Your task to perform on an android device: Toggle the flashlight Image 0: 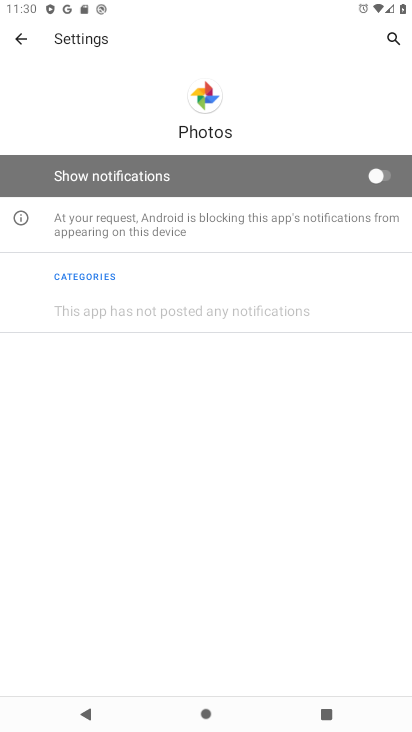
Step 0: press home button
Your task to perform on an android device: Toggle the flashlight Image 1: 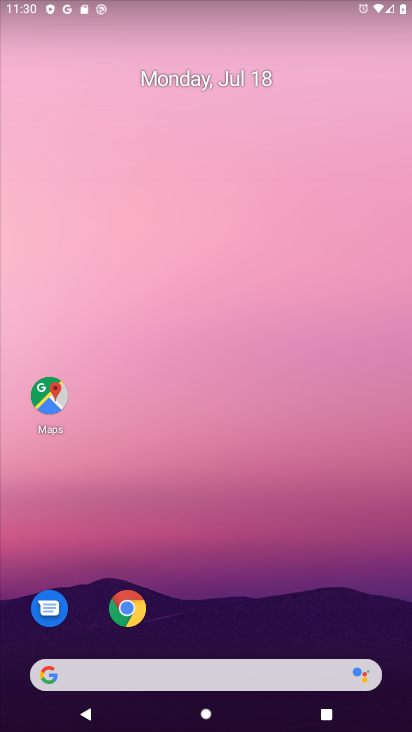
Step 1: drag from (286, 610) to (290, 97)
Your task to perform on an android device: Toggle the flashlight Image 2: 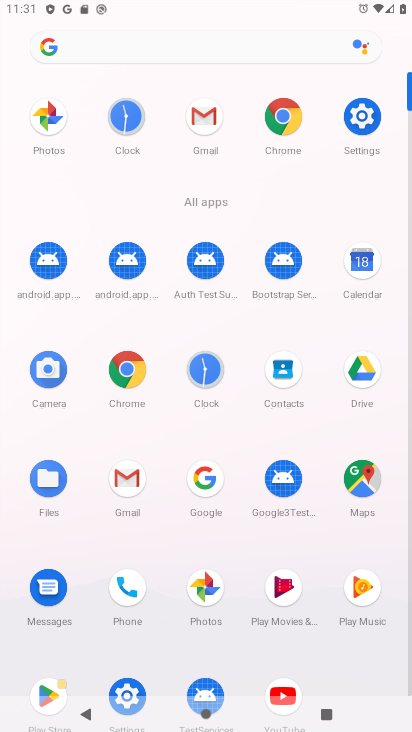
Step 2: click (358, 110)
Your task to perform on an android device: Toggle the flashlight Image 3: 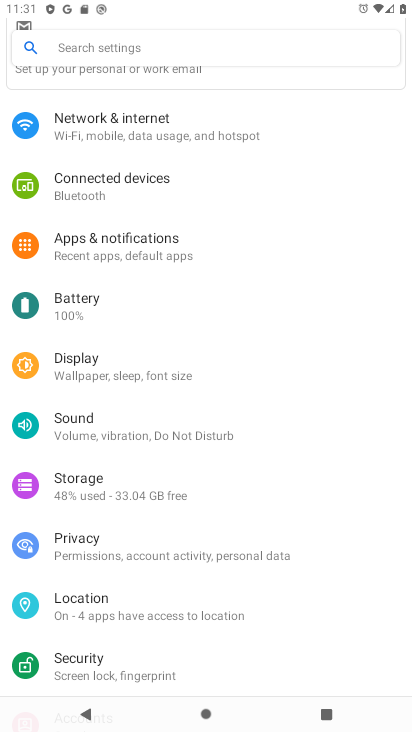
Step 3: task complete